Your task to perform on an android device: toggle notifications settings in the gmail app Image 0: 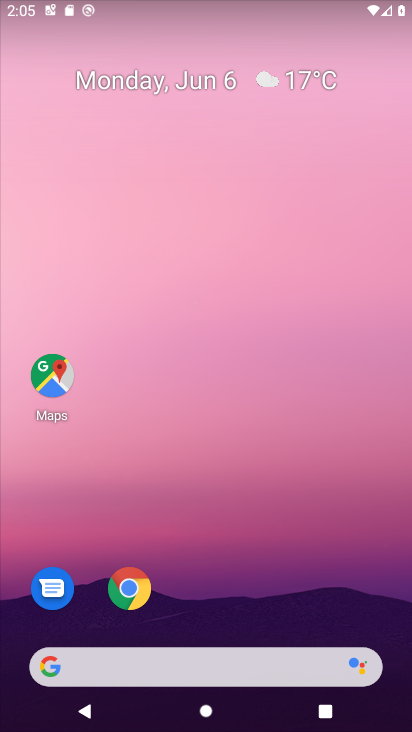
Step 0: drag from (263, 713) to (301, 20)
Your task to perform on an android device: toggle notifications settings in the gmail app Image 1: 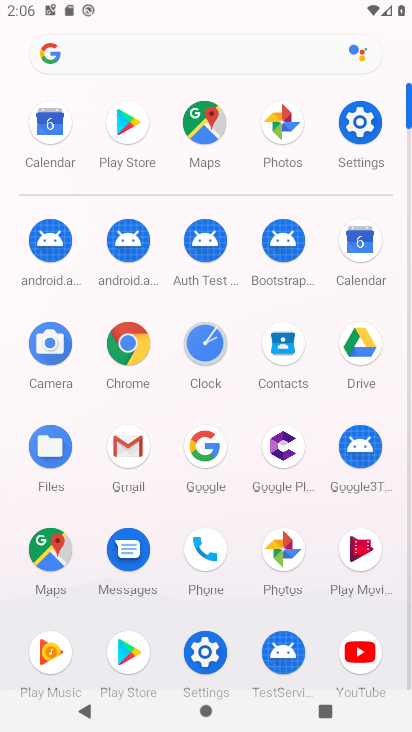
Step 1: click (131, 452)
Your task to perform on an android device: toggle notifications settings in the gmail app Image 2: 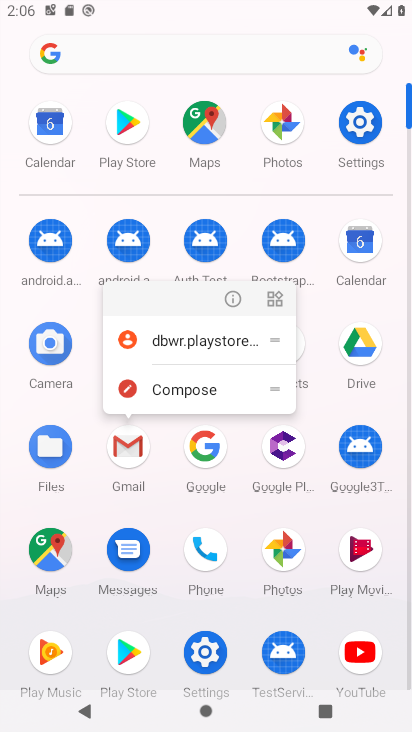
Step 2: click (225, 306)
Your task to perform on an android device: toggle notifications settings in the gmail app Image 3: 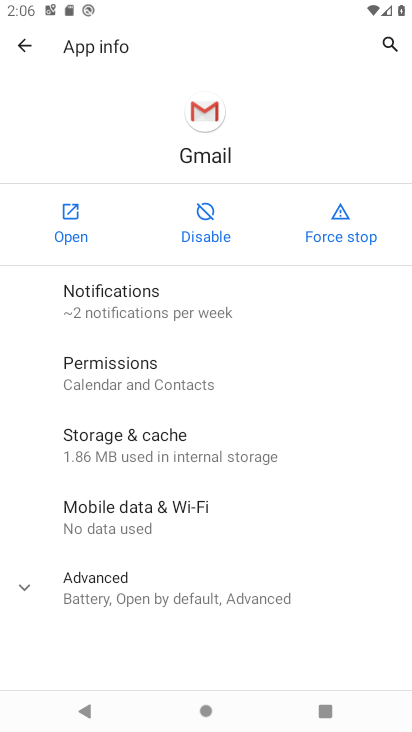
Step 3: click (216, 313)
Your task to perform on an android device: toggle notifications settings in the gmail app Image 4: 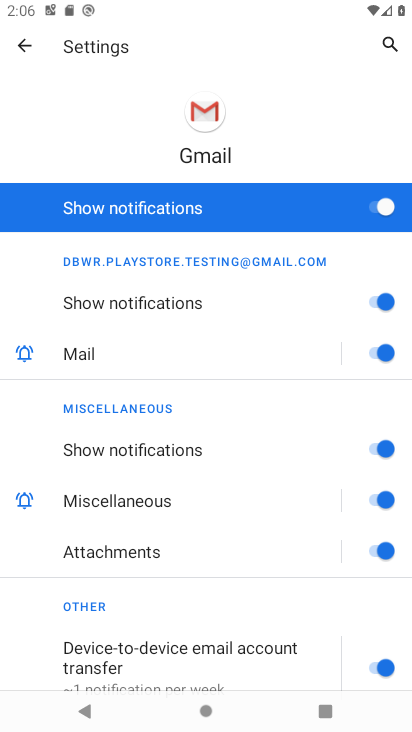
Step 4: click (385, 212)
Your task to perform on an android device: toggle notifications settings in the gmail app Image 5: 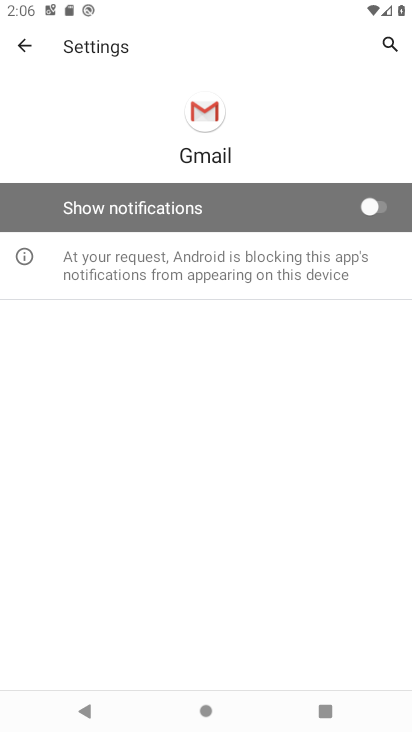
Step 5: task complete